Your task to perform on an android device: Show me popular videos on Youtube Image 0: 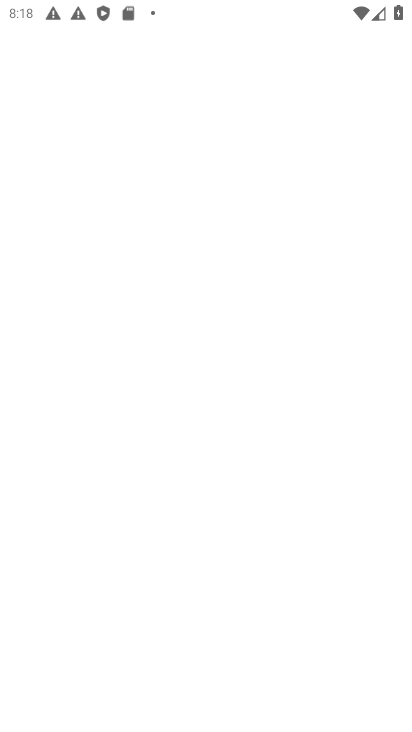
Step 0: press home button
Your task to perform on an android device: Show me popular videos on Youtube Image 1: 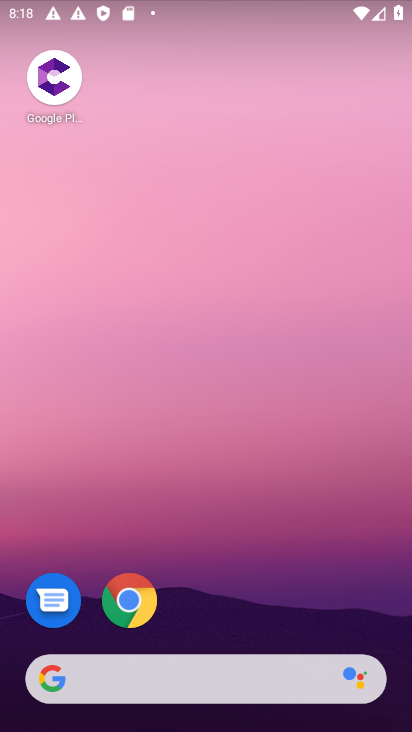
Step 1: drag from (254, 631) to (270, 54)
Your task to perform on an android device: Show me popular videos on Youtube Image 2: 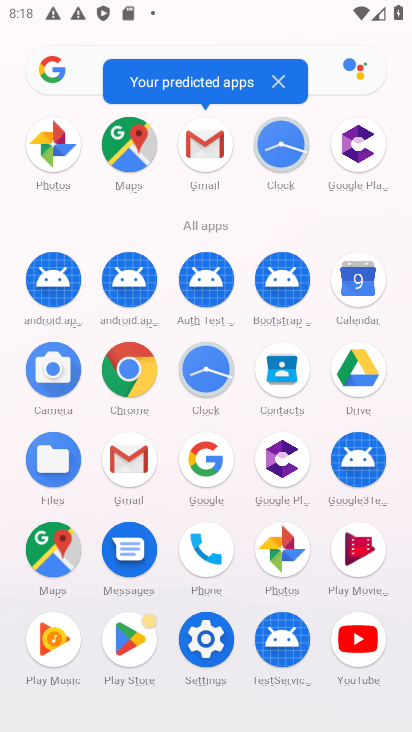
Step 2: click (352, 654)
Your task to perform on an android device: Show me popular videos on Youtube Image 3: 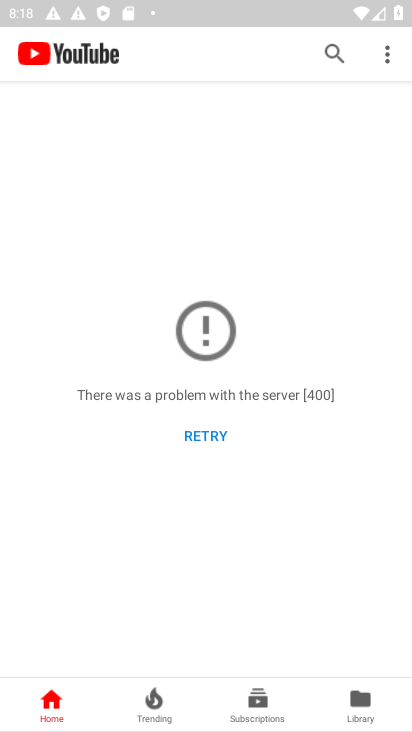
Step 3: click (202, 435)
Your task to perform on an android device: Show me popular videos on Youtube Image 4: 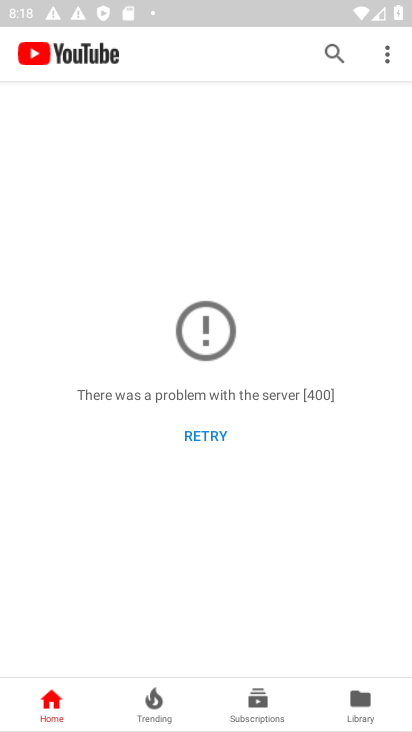
Step 4: click (202, 435)
Your task to perform on an android device: Show me popular videos on Youtube Image 5: 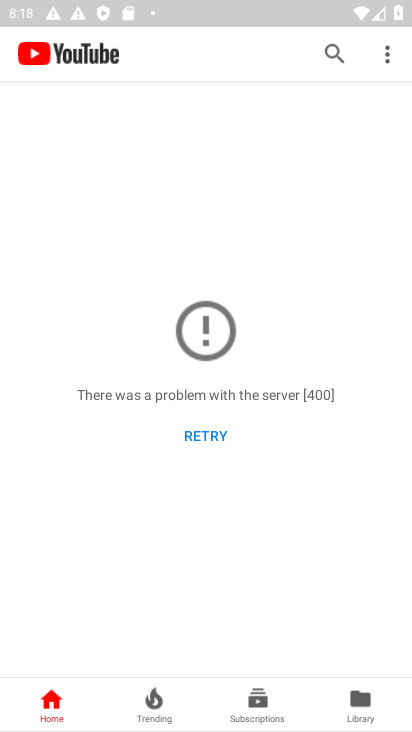
Step 5: click (202, 435)
Your task to perform on an android device: Show me popular videos on Youtube Image 6: 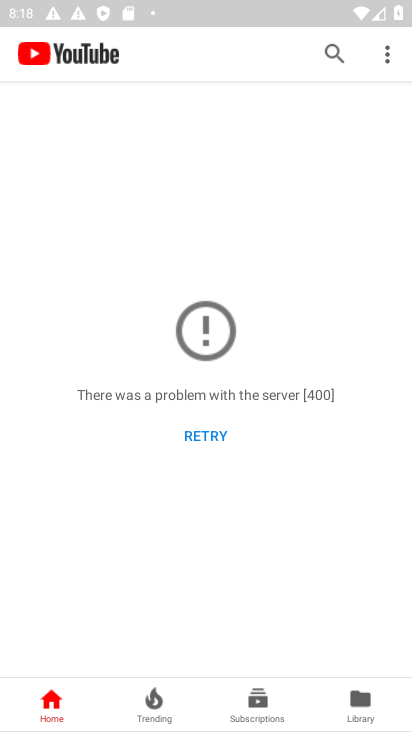
Step 6: task complete